Your task to perform on an android device: Open CNN.com Image 0: 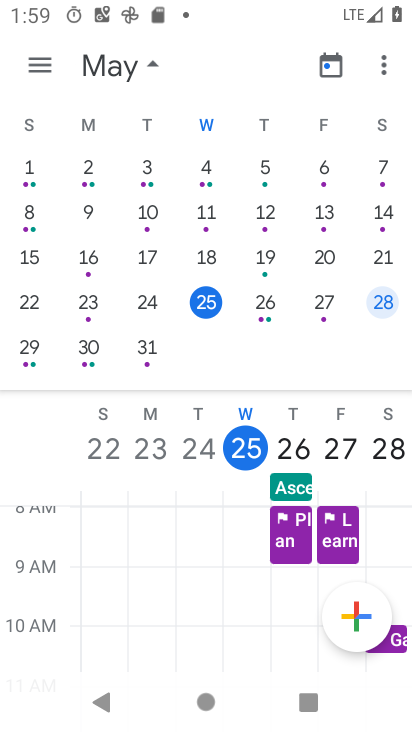
Step 0: press home button
Your task to perform on an android device: Open CNN.com Image 1: 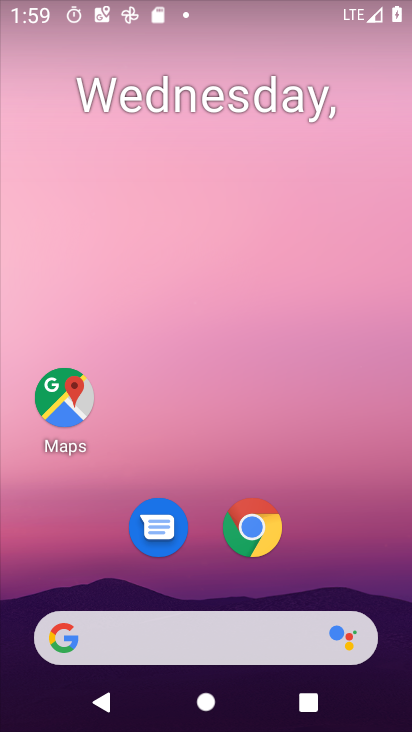
Step 1: drag from (244, 639) to (323, 138)
Your task to perform on an android device: Open CNN.com Image 2: 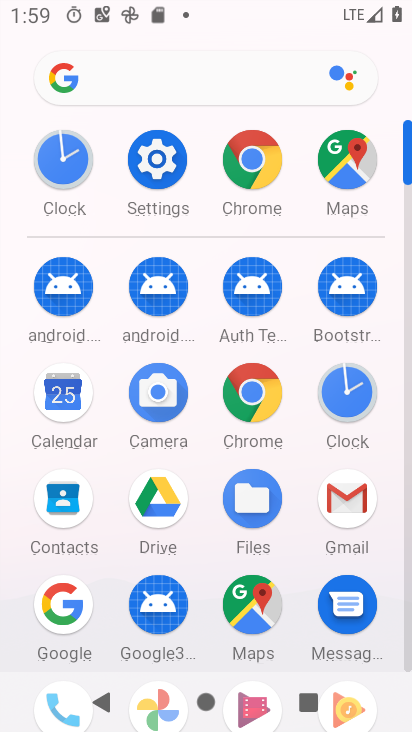
Step 2: click (263, 399)
Your task to perform on an android device: Open CNN.com Image 3: 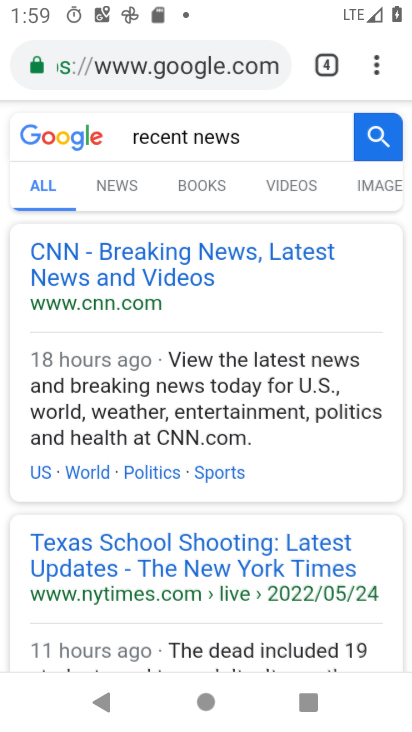
Step 3: click (212, 61)
Your task to perform on an android device: Open CNN.com Image 4: 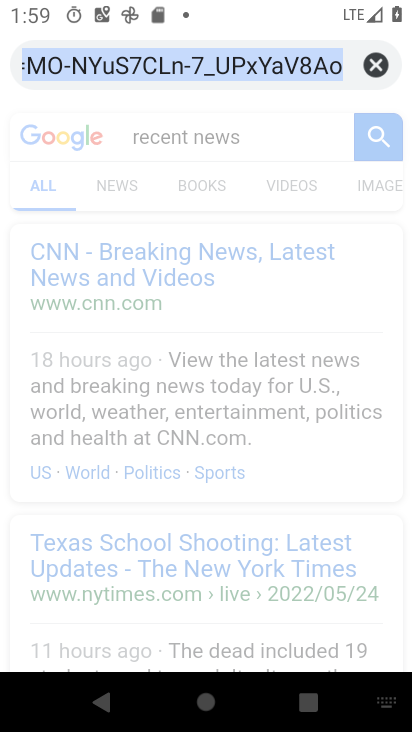
Step 4: click (379, 67)
Your task to perform on an android device: Open CNN.com Image 5: 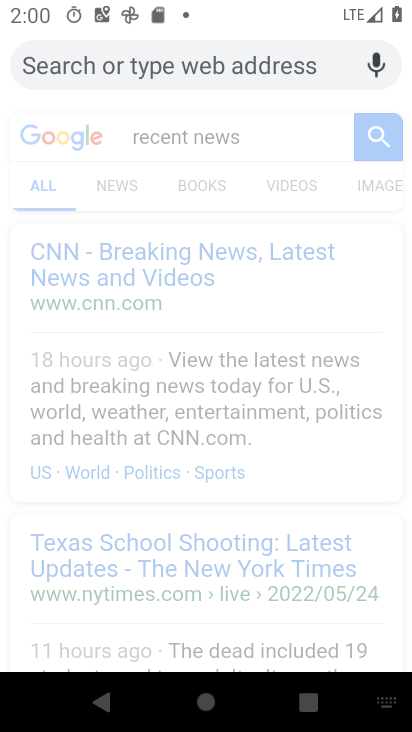
Step 5: type "cnn.com"
Your task to perform on an android device: Open CNN.com Image 6: 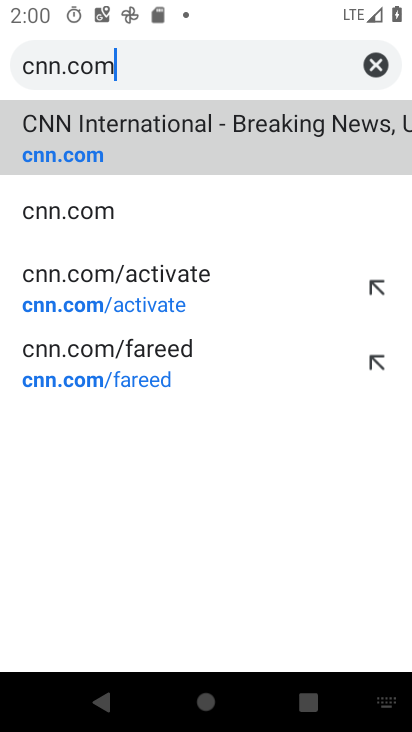
Step 6: click (215, 122)
Your task to perform on an android device: Open CNN.com Image 7: 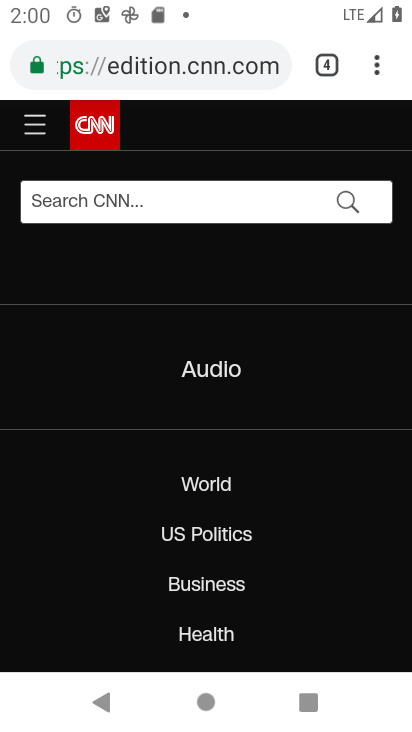
Step 7: task complete